Your task to perform on an android device: Open Youtube and go to the subscriptions tab Image 0: 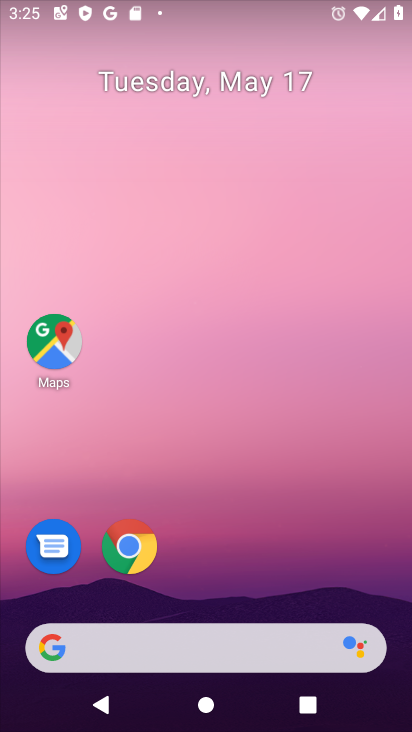
Step 0: drag from (399, 683) to (356, 326)
Your task to perform on an android device: Open Youtube and go to the subscriptions tab Image 1: 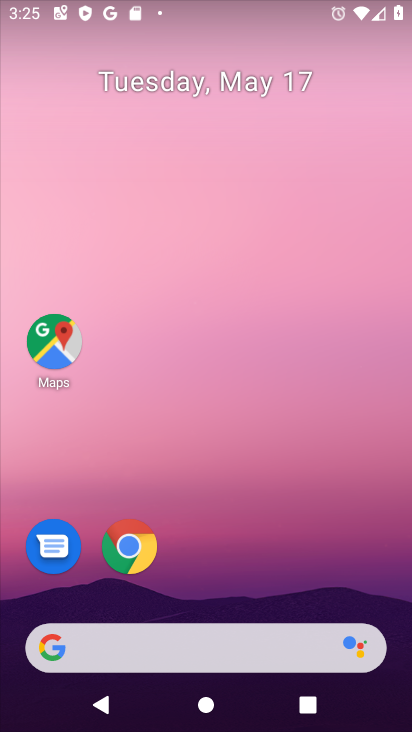
Step 1: drag from (400, 671) to (380, 306)
Your task to perform on an android device: Open Youtube and go to the subscriptions tab Image 2: 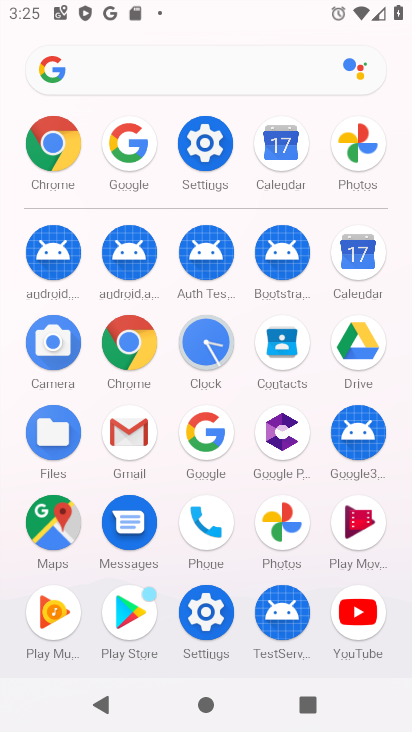
Step 2: click (361, 603)
Your task to perform on an android device: Open Youtube and go to the subscriptions tab Image 3: 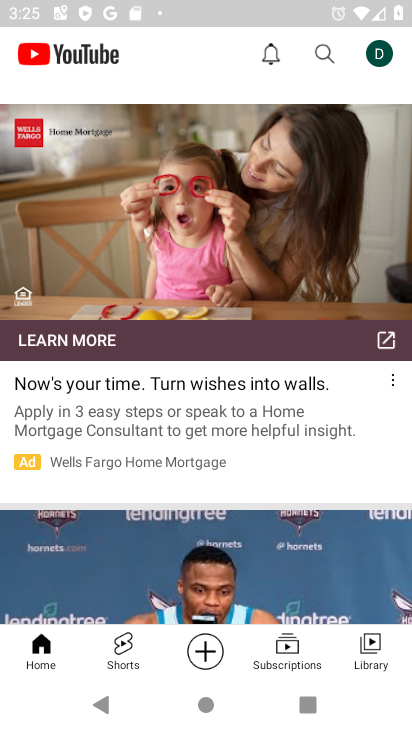
Step 3: click (275, 656)
Your task to perform on an android device: Open Youtube and go to the subscriptions tab Image 4: 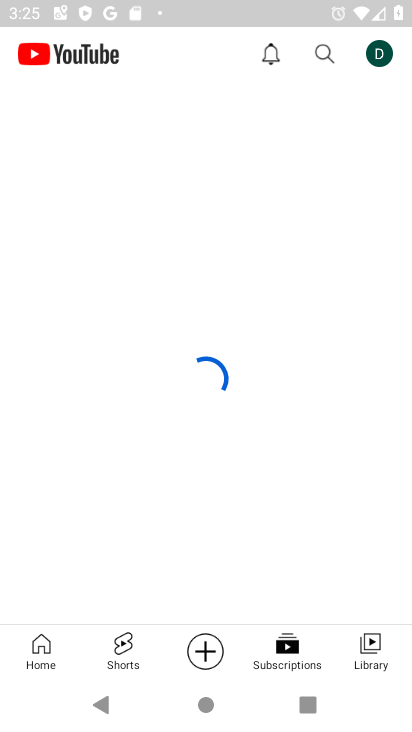
Step 4: task complete